Your task to perform on an android device: open chrome and create a bookmark for the current page Image 0: 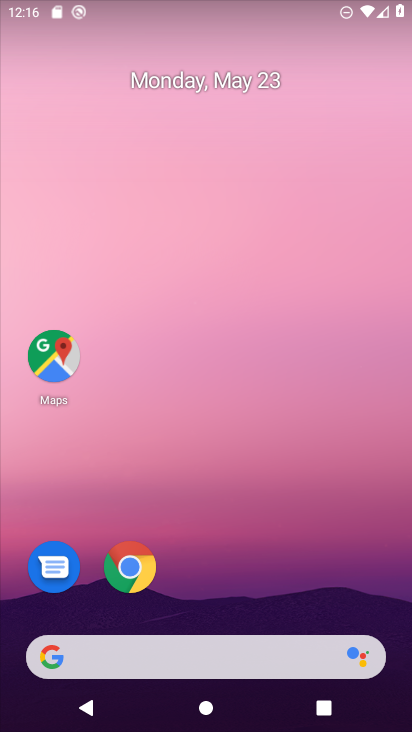
Step 0: click (121, 570)
Your task to perform on an android device: open chrome and create a bookmark for the current page Image 1: 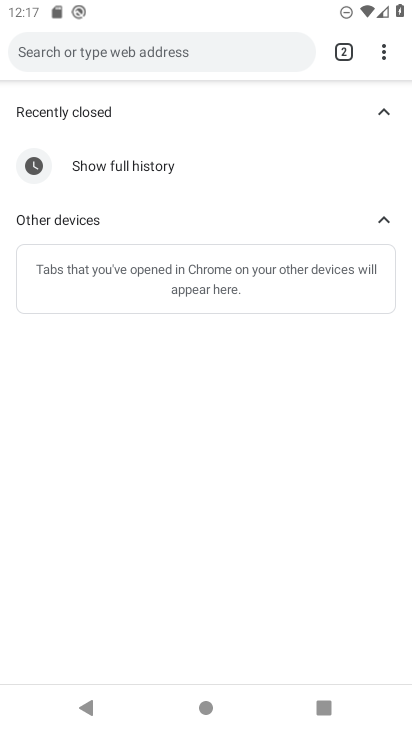
Step 1: click (391, 54)
Your task to perform on an android device: open chrome and create a bookmark for the current page Image 2: 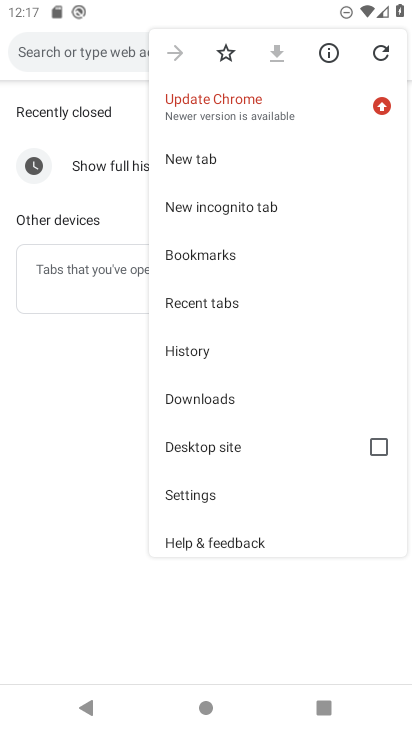
Step 2: click (220, 55)
Your task to perform on an android device: open chrome and create a bookmark for the current page Image 3: 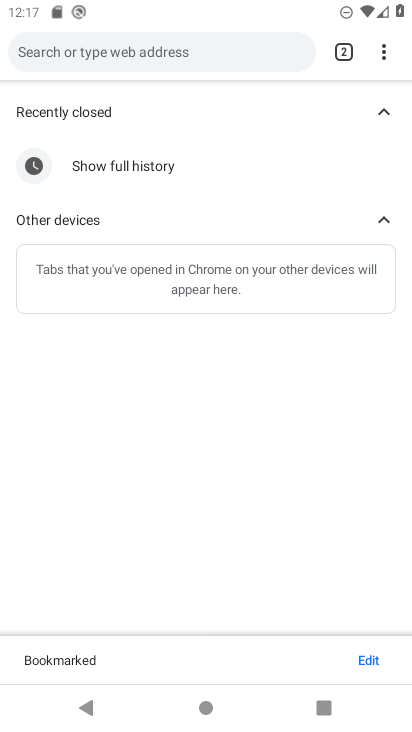
Step 3: task complete